Your task to perform on an android device: Open location settings Image 0: 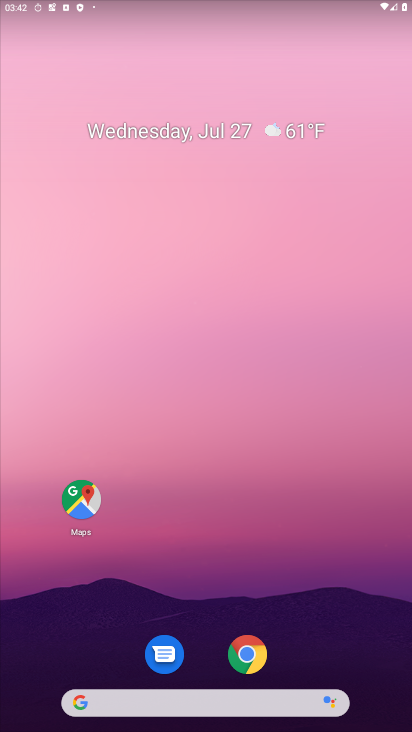
Step 0: drag from (191, 695) to (290, 133)
Your task to perform on an android device: Open location settings Image 1: 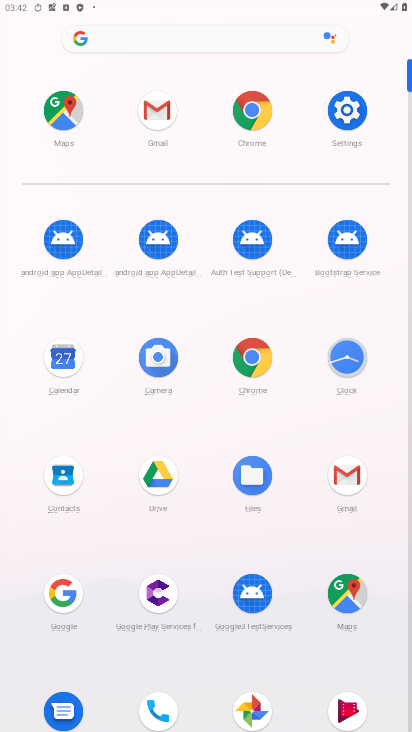
Step 1: click (359, 106)
Your task to perform on an android device: Open location settings Image 2: 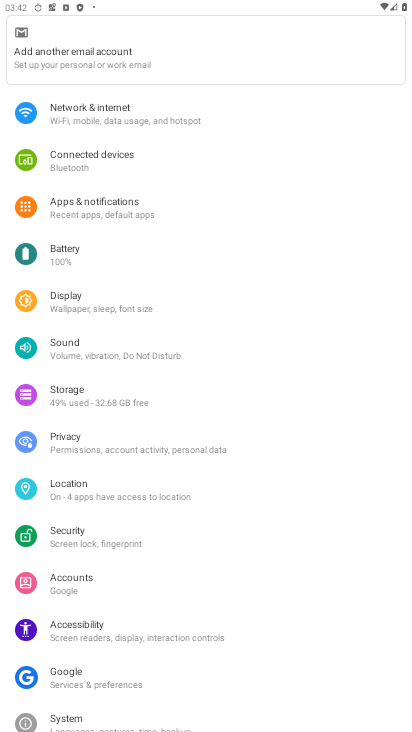
Step 2: click (78, 481)
Your task to perform on an android device: Open location settings Image 3: 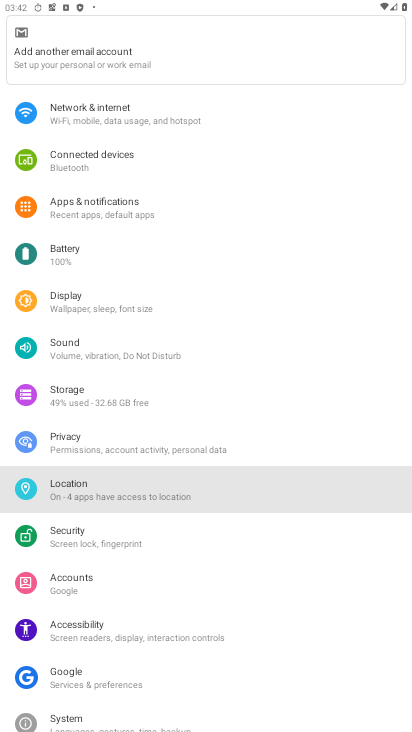
Step 3: task complete